Your task to perform on an android device: change the clock display to show seconds Image 0: 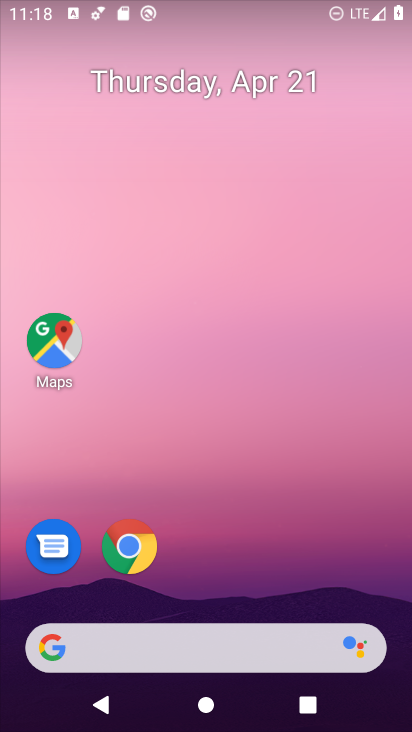
Step 0: drag from (384, 619) to (339, 198)
Your task to perform on an android device: change the clock display to show seconds Image 1: 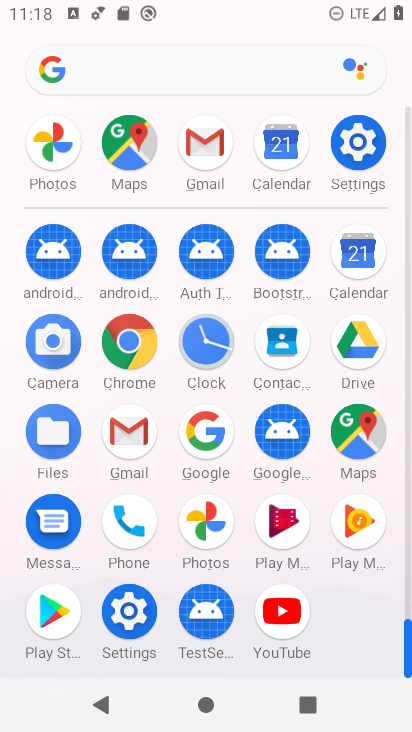
Step 1: click (202, 347)
Your task to perform on an android device: change the clock display to show seconds Image 2: 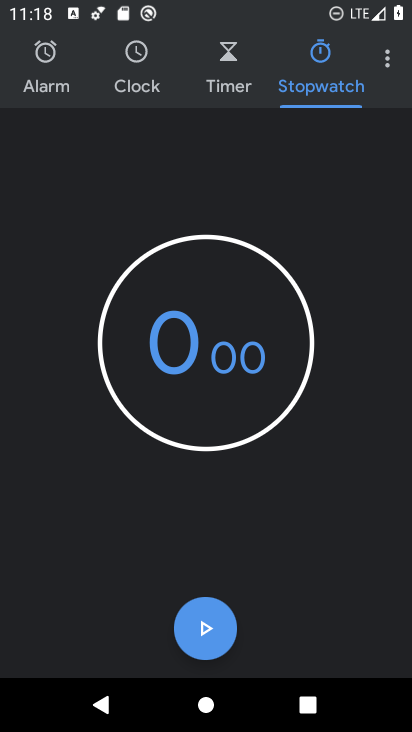
Step 2: click (383, 62)
Your task to perform on an android device: change the clock display to show seconds Image 3: 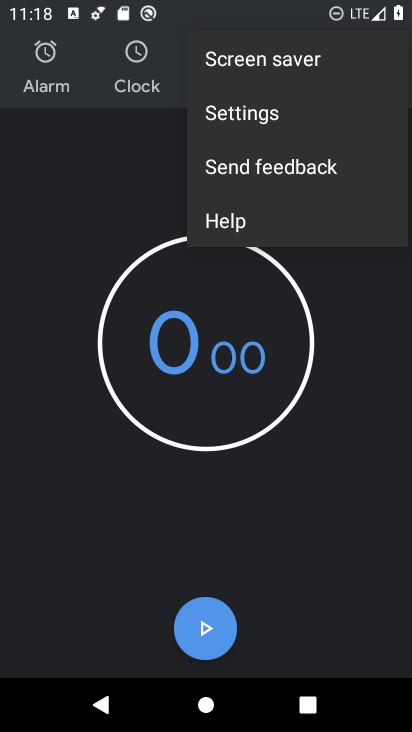
Step 3: click (247, 115)
Your task to perform on an android device: change the clock display to show seconds Image 4: 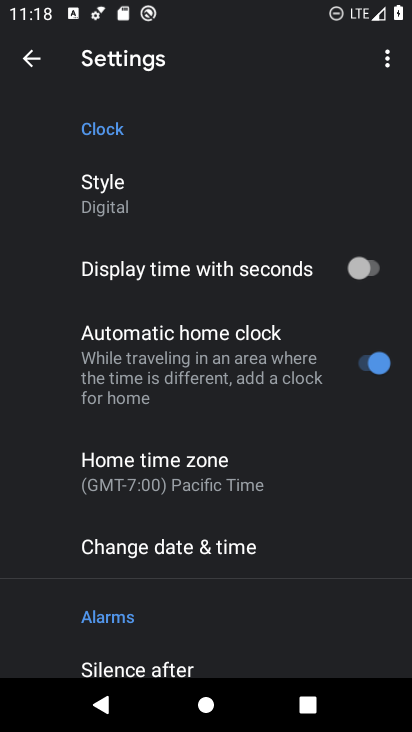
Step 4: click (367, 274)
Your task to perform on an android device: change the clock display to show seconds Image 5: 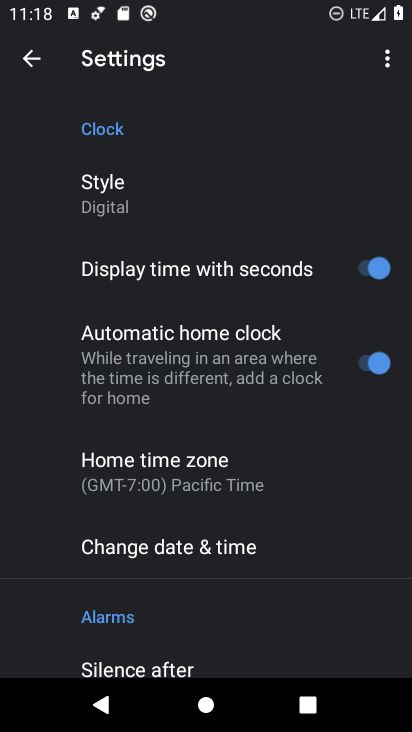
Step 5: task complete